Your task to perform on an android device: Show me popular games on the Play Store Image 0: 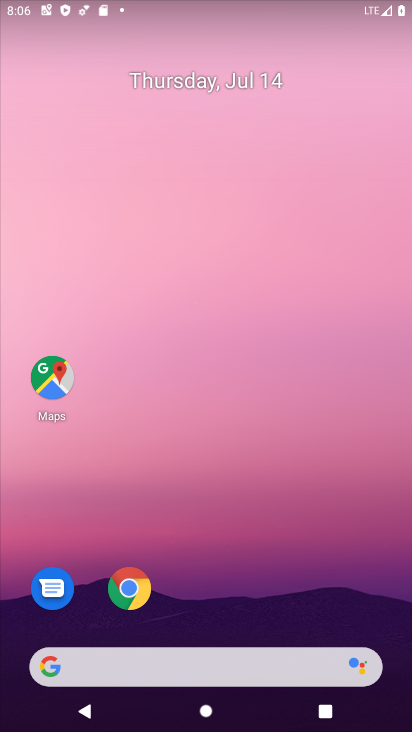
Step 0: drag from (379, 637) to (236, 126)
Your task to perform on an android device: Show me popular games on the Play Store Image 1: 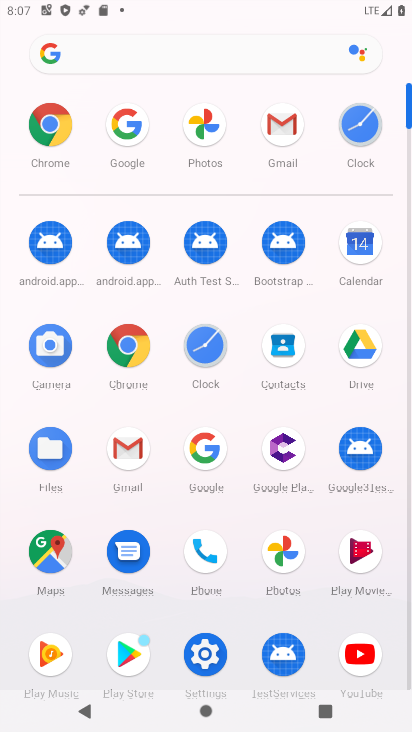
Step 1: click (118, 644)
Your task to perform on an android device: Show me popular games on the Play Store Image 2: 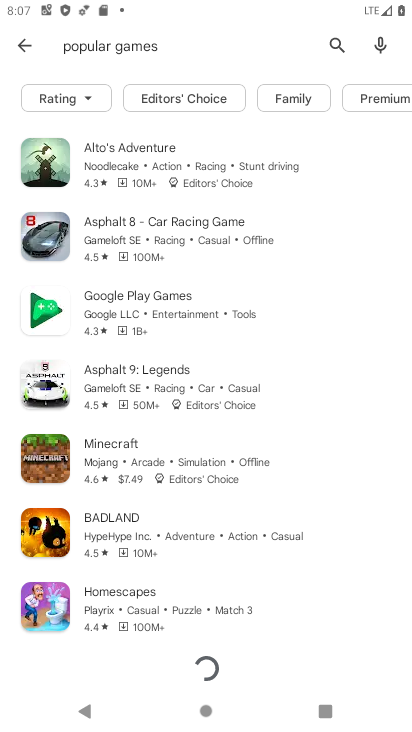
Step 2: task complete